Your task to perform on an android device: Open network settings Image 0: 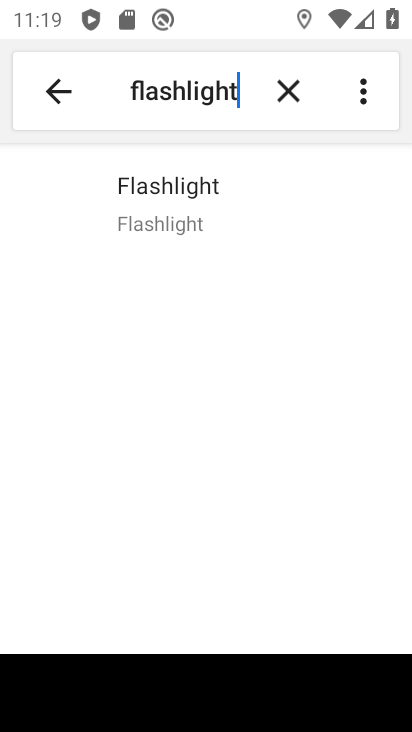
Step 0: press home button
Your task to perform on an android device: Open network settings Image 1: 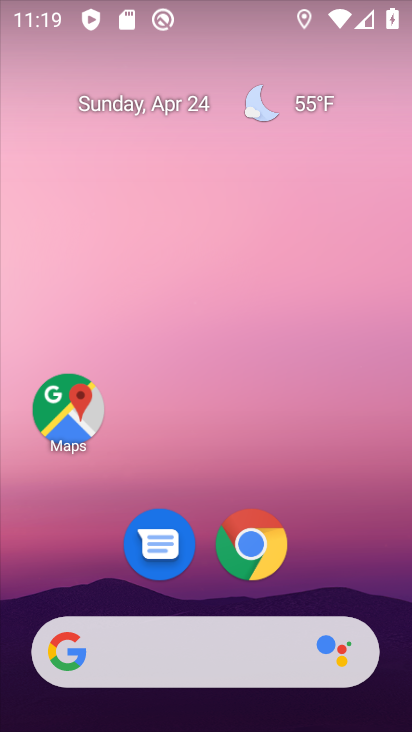
Step 1: drag from (307, 464) to (171, 130)
Your task to perform on an android device: Open network settings Image 2: 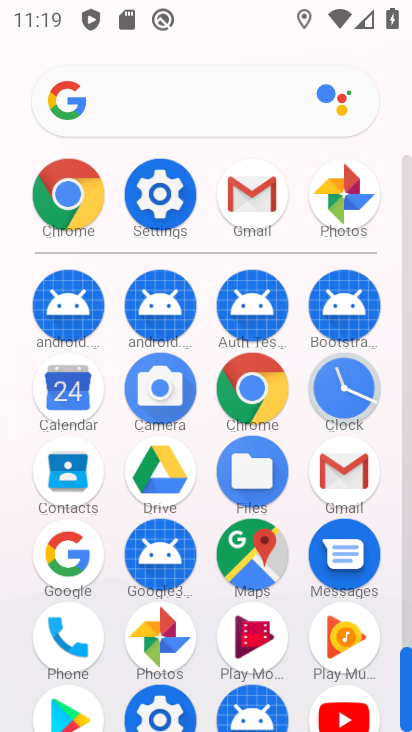
Step 2: click (174, 200)
Your task to perform on an android device: Open network settings Image 3: 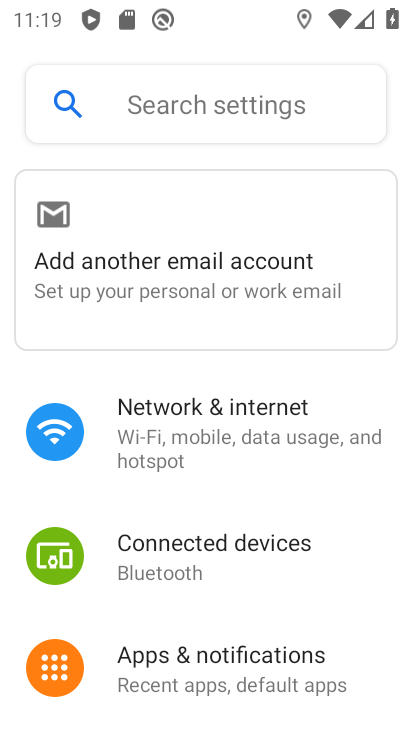
Step 3: click (168, 439)
Your task to perform on an android device: Open network settings Image 4: 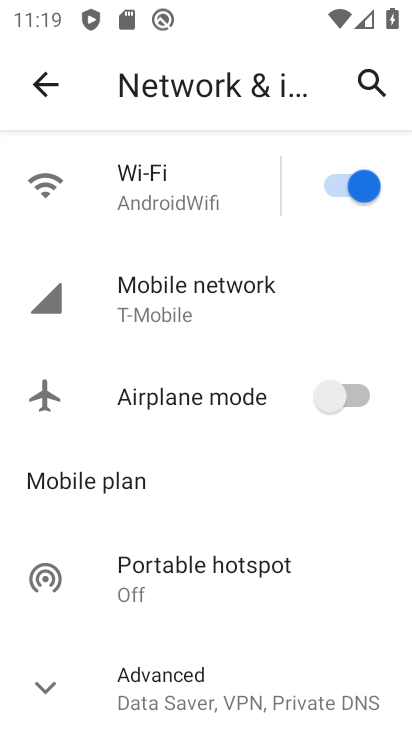
Step 4: task complete